Your task to perform on an android device: Open my contact list Image 0: 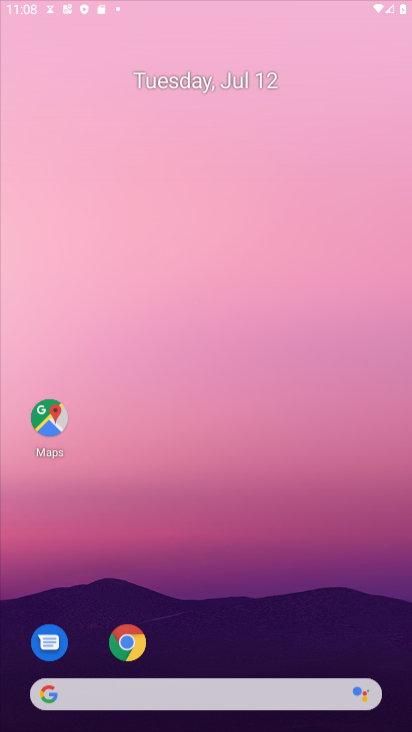
Step 0: press home button
Your task to perform on an android device: Open my contact list Image 1: 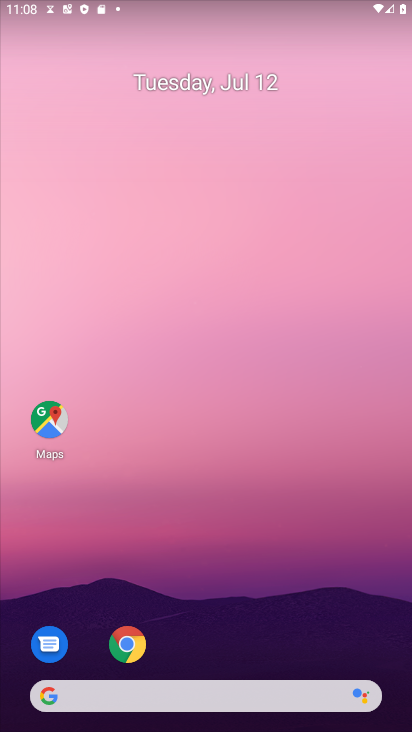
Step 1: drag from (213, 664) to (202, 1)
Your task to perform on an android device: Open my contact list Image 2: 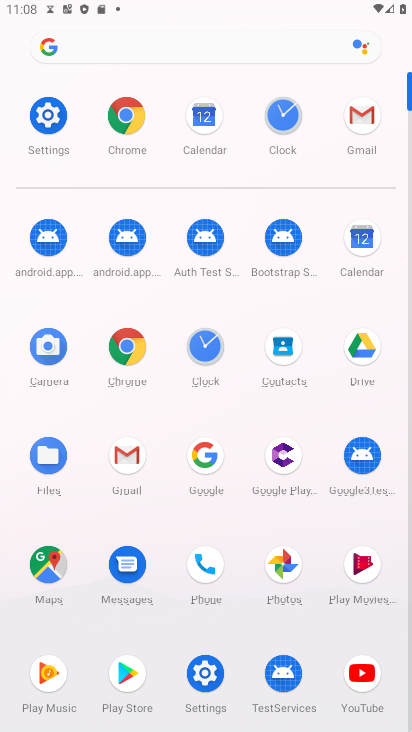
Step 2: click (279, 342)
Your task to perform on an android device: Open my contact list Image 3: 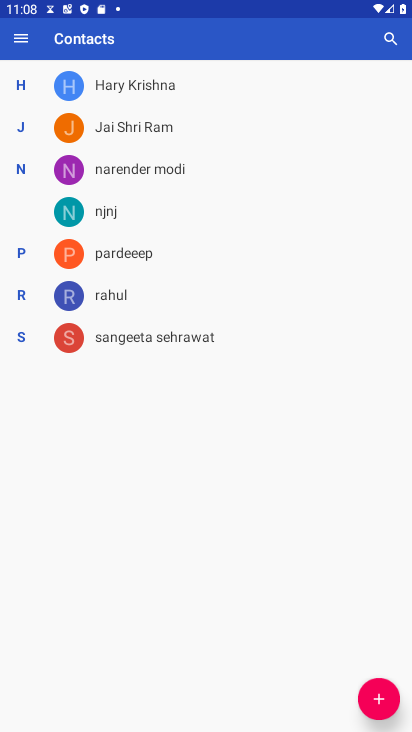
Step 3: task complete